Your task to perform on an android device: View the shopping cart on bestbuy.com. Search for "bose soundlink" on bestbuy.com, select the first entry, add it to the cart, then select checkout. Image 0: 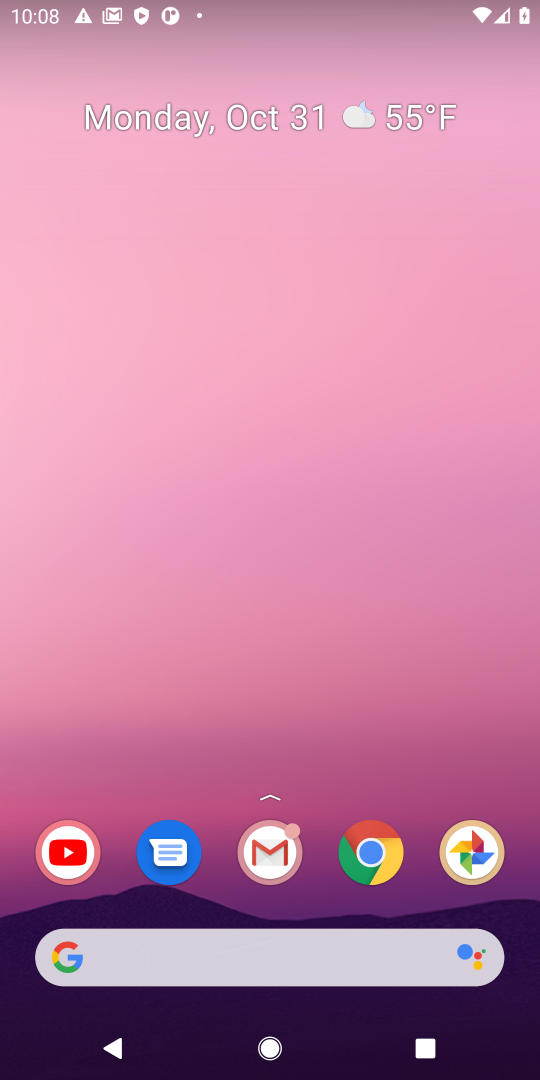
Step 0: drag from (313, 412) to (301, 85)
Your task to perform on an android device: View the shopping cart on bestbuy.com. Search for "bose soundlink" on bestbuy.com, select the first entry, add it to the cart, then select checkout. Image 1: 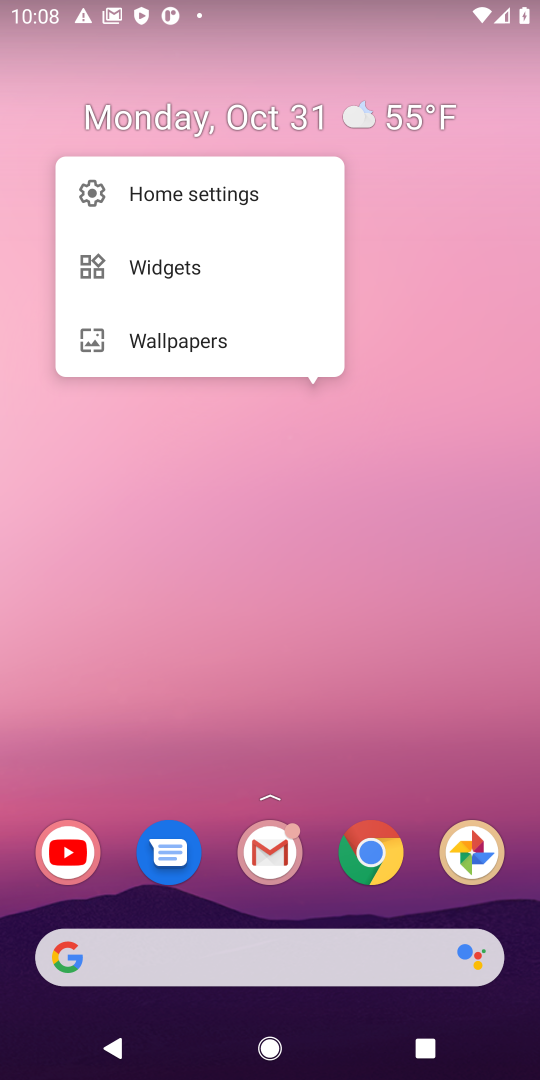
Step 1: click (345, 641)
Your task to perform on an android device: View the shopping cart on bestbuy.com. Search for "bose soundlink" on bestbuy.com, select the first entry, add it to the cart, then select checkout. Image 2: 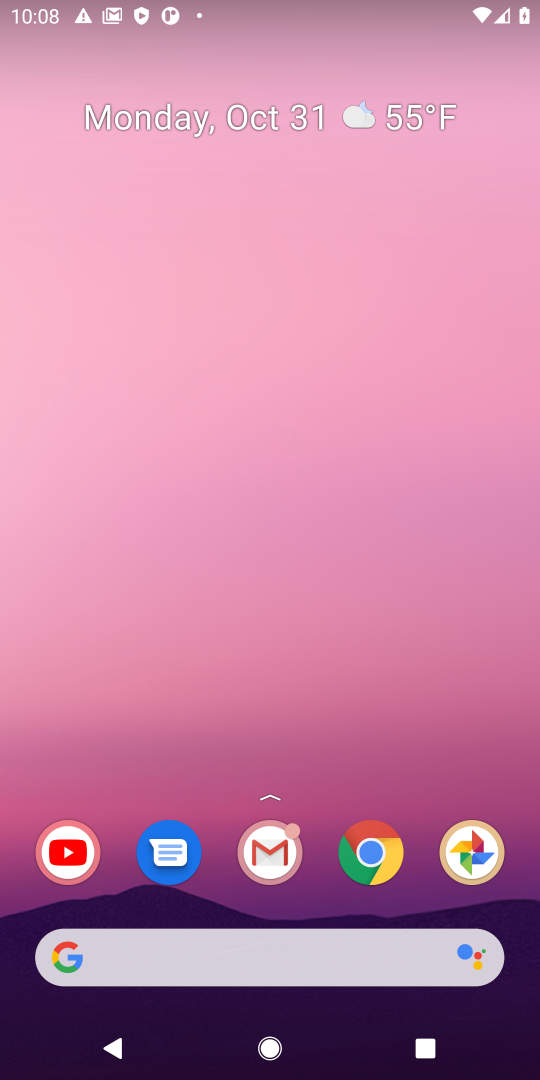
Step 2: drag from (310, 811) to (300, 126)
Your task to perform on an android device: View the shopping cart on bestbuy.com. Search for "bose soundlink" on bestbuy.com, select the first entry, add it to the cart, then select checkout. Image 3: 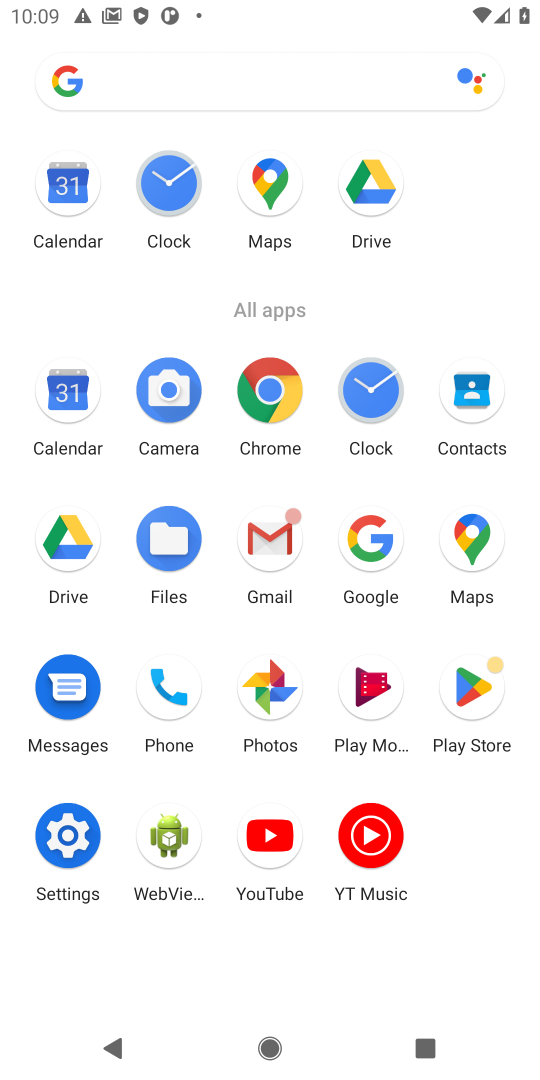
Step 3: click (269, 386)
Your task to perform on an android device: View the shopping cart on bestbuy.com. Search for "bose soundlink" on bestbuy.com, select the first entry, add it to the cart, then select checkout. Image 4: 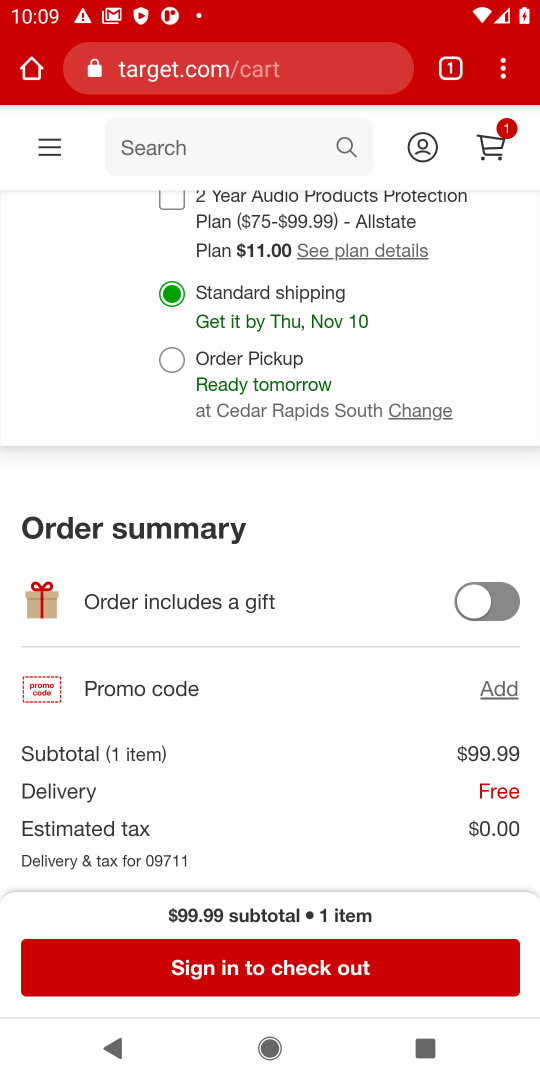
Step 4: click (218, 62)
Your task to perform on an android device: View the shopping cart on bestbuy.com. Search for "bose soundlink" on bestbuy.com, select the first entry, add it to the cart, then select checkout. Image 5: 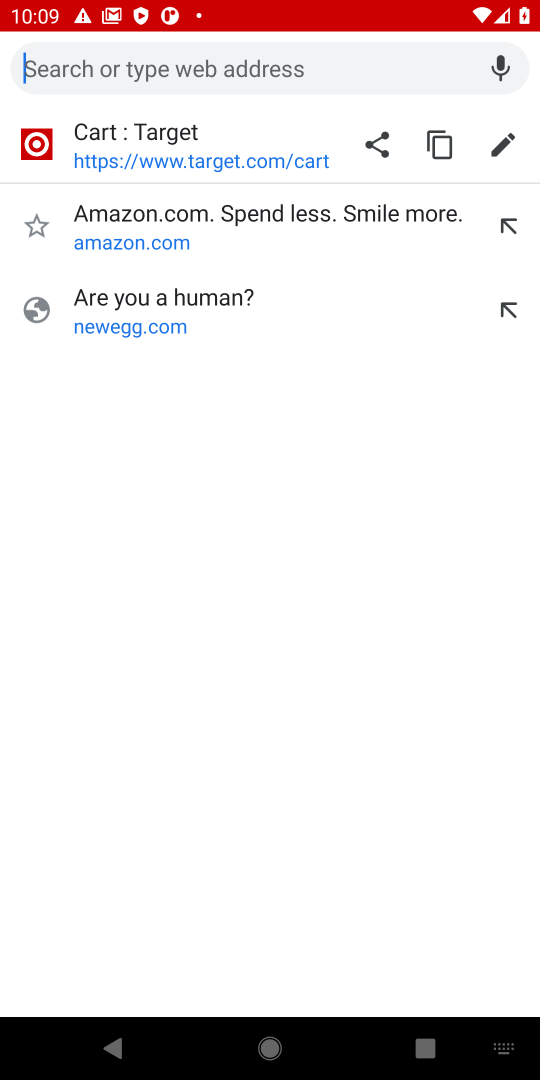
Step 5: type "bestbuy.com"
Your task to perform on an android device: View the shopping cart on bestbuy.com. Search for "bose soundlink" on bestbuy.com, select the first entry, add it to the cart, then select checkout. Image 6: 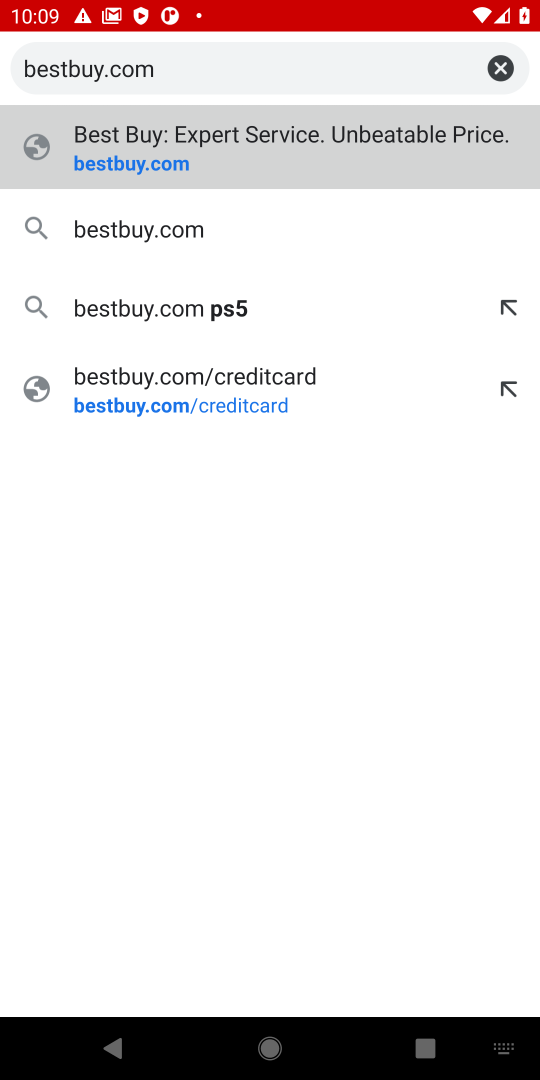
Step 6: type ""
Your task to perform on an android device: View the shopping cart on bestbuy.com. Search for "bose soundlink" on bestbuy.com, select the first entry, add it to the cart, then select checkout. Image 7: 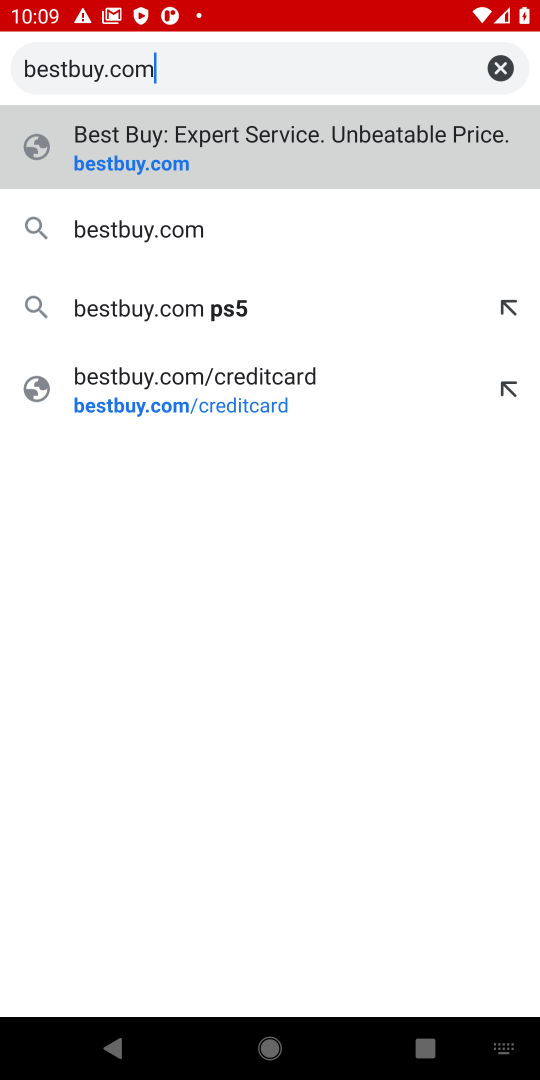
Step 7: click (171, 156)
Your task to perform on an android device: View the shopping cart on bestbuy.com. Search for "bose soundlink" on bestbuy.com, select the first entry, add it to the cart, then select checkout. Image 8: 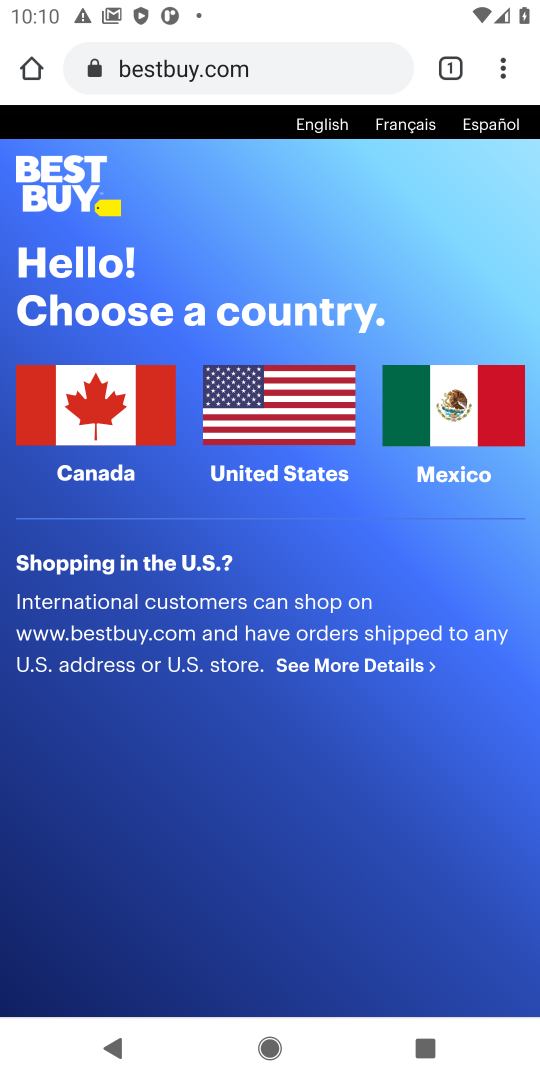
Step 8: click (278, 401)
Your task to perform on an android device: View the shopping cart on bestbuy.com. Search for "bose soundlink" on bestbuy.com, select the first entry, add it to the cart, then select checkout. Image 9: 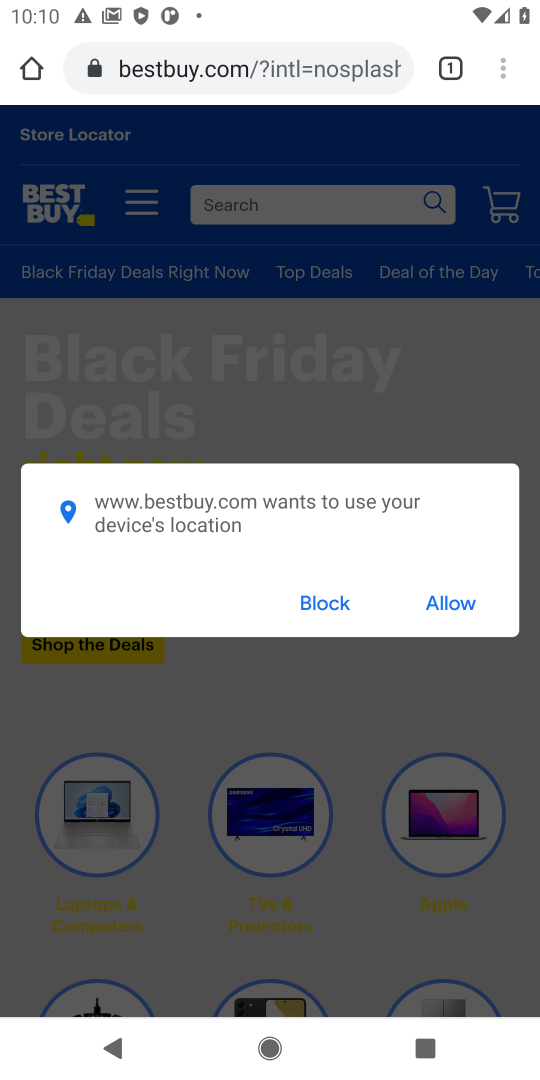
Step 9: click (452, 599)
Your task to perform on an android device: View the shopping cart on bestbuy.com. Search for "bose soundlink" on bestbuy.com, select the first entry, add it to the cart, then select checkout. Image 10: 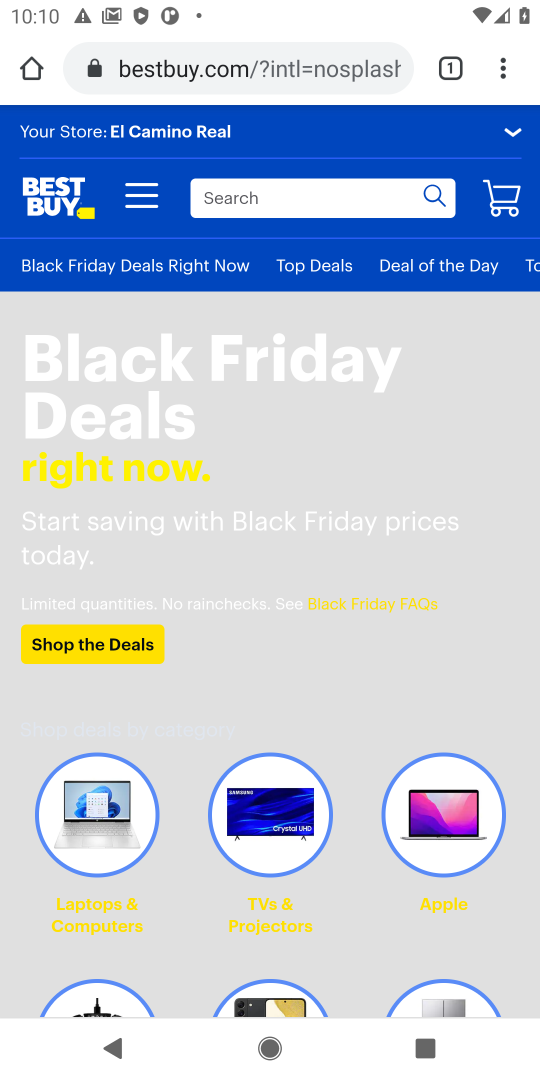
Step 10: click (261, 198)
Your task to perform on an android device: View the shopping cart on bestbuy.com. Search for "bose soundlink" on bestbuy.com, select the first entry, add it to the cart, then select checkout. Image 11: 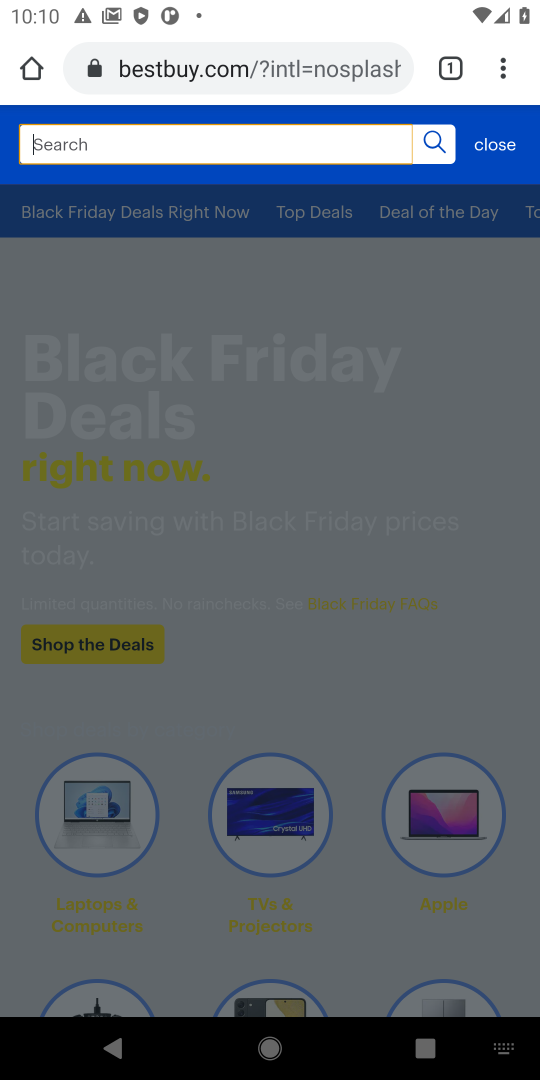
Step 11: type "bose soundlink"
Your task to perform on an android device: View the shopping cart on bestbuy.com. Search for "bose soundlink" on bestbuy.com, select the first entry, add it to the cart, then select checkout. Image 12: 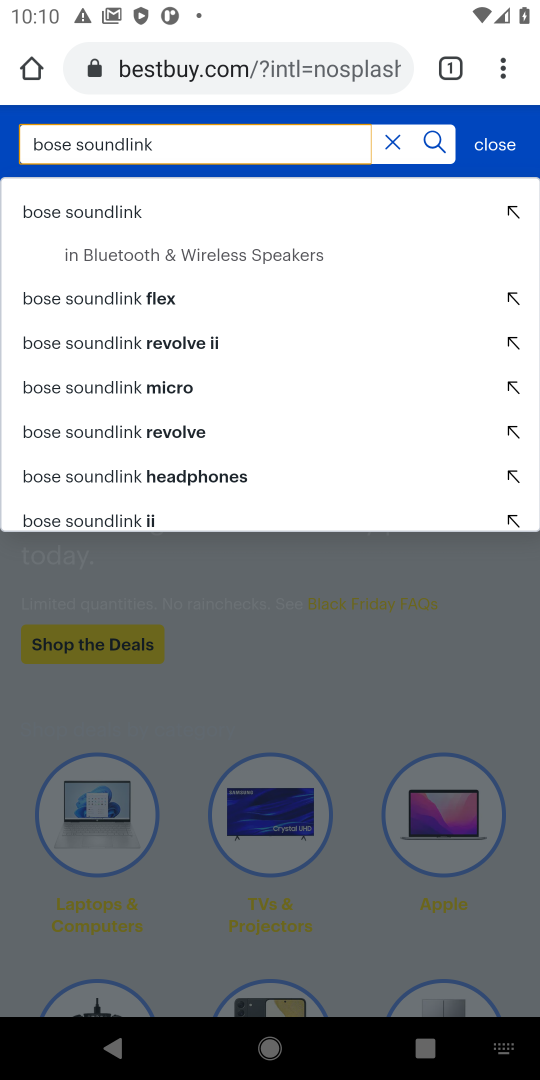
Step 12: click (148, 221)
Your task to perform on an android device: View the shopping cart on bestbuy.com. Search for "bose soundlink" on bestbuy.com, select the first entry, add it to the cart, then select checkout. Image 13: 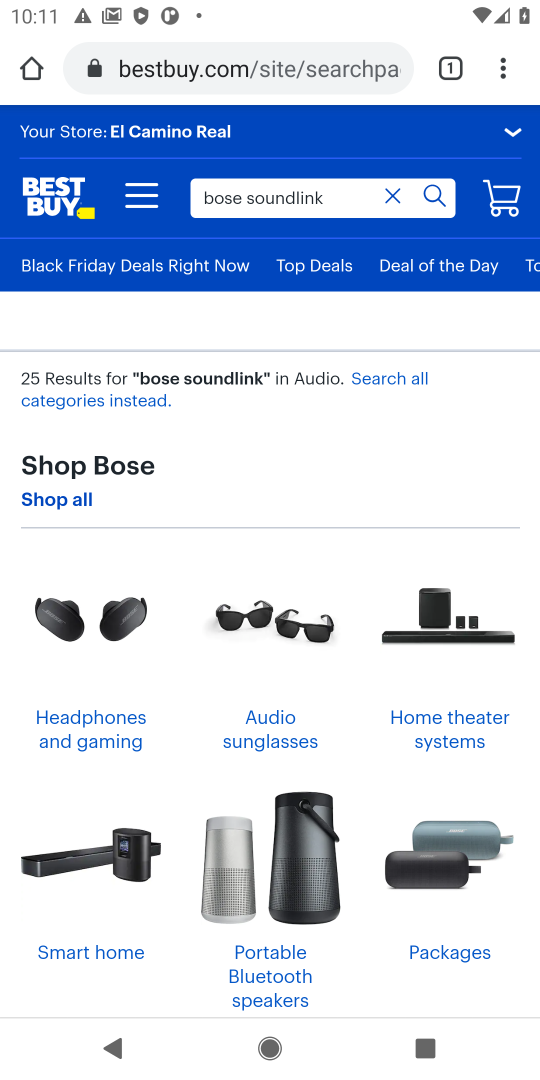
Step 13: drag from (336, 735) to (318, 366)
Your task to perform on an android device: View the shopping cart on bestbuy.com. Search for "bose soundlink" on bestbuy.com, select the first entry, add it to the cart, then select checkout. Image 14: 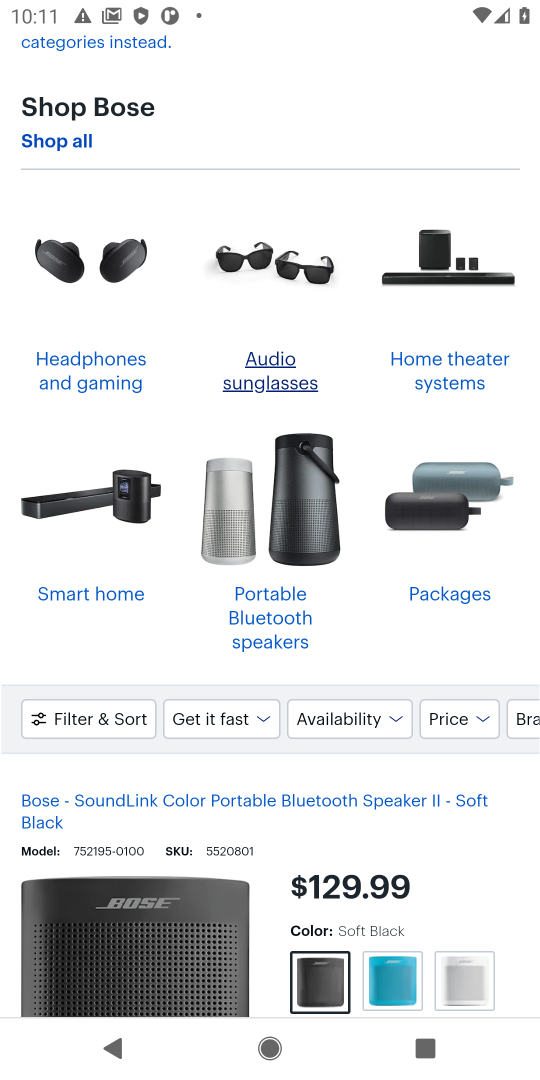
Step 14: drag from (315, 890) to (314, 310)
Your task to perform on an android device: View the shopping cart on bestbuy.com. Search for "bose soundlink" on bestbuy.com, select the first entry, add it to the cart, then select checkout. Image 15: 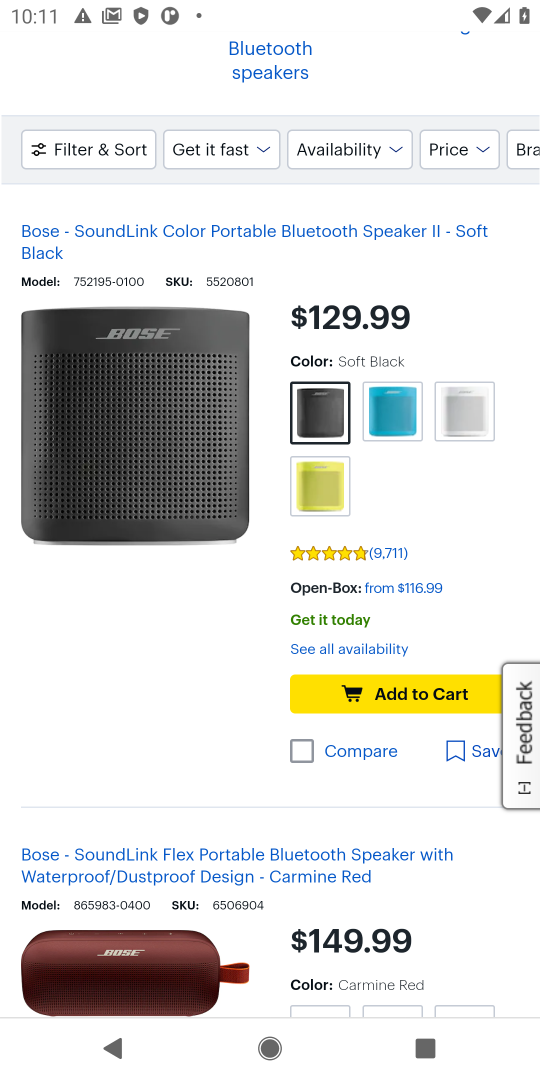
Step 15: click (268, 358)
Your task to perform on an android device: View the shopping cart on bestbuy.com. Search for "bose soundlink" on bestbuy.com, select the first entry, add it to the cart, then select checkout. Image 16: 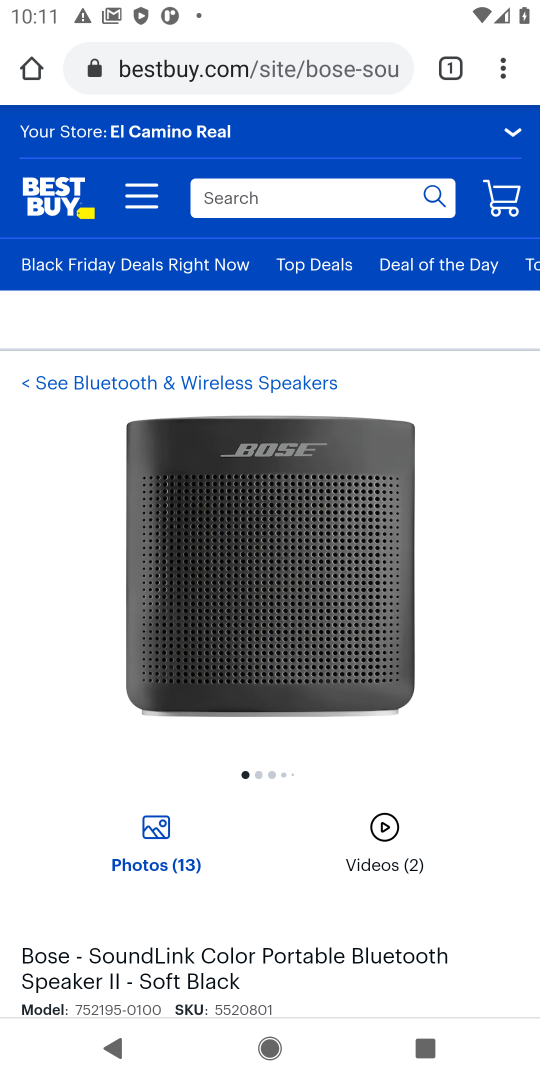
Step 16: drag from (299, 947) to (266, 323)
Your task to perform on an android device: View the shopping cart on bestbuy.com. Search for "bose soundlink" on bestbuy.com, select the first entry, add it to the cart, then select checkout. Image 17: 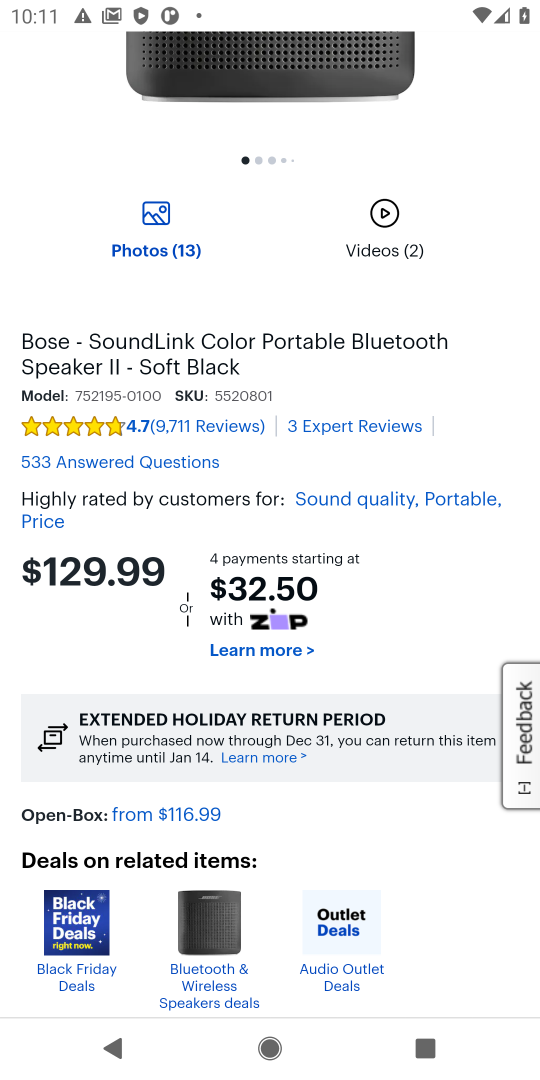
Step 17: drag from (418, 863) to (366, 260)
Your task to perform on an android device: View the shopping cart on bestbuy.com. Search for "bose soundlink" on bestbuy.com, select the first entry, add it to the cart, then select checkout. Image 18: 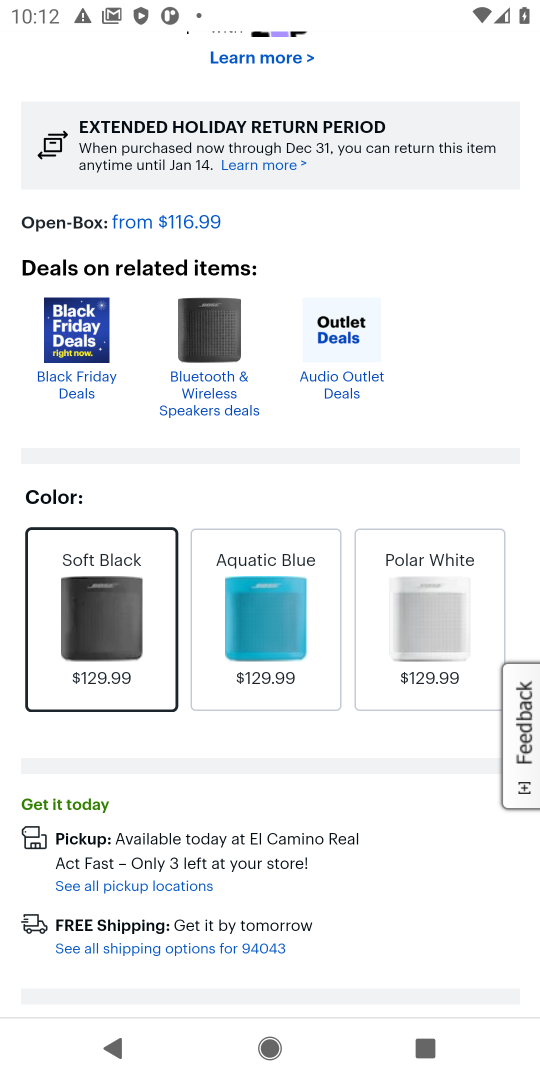
Step 18: drag from (289, 887) to (253, 413)
Your task to perform on an android device: View the shopping cart on bestbuy.com. Search for "bose soundlink" on bestbuy.com, select the first entry, add it to the cart, then select checkout. Image 19: 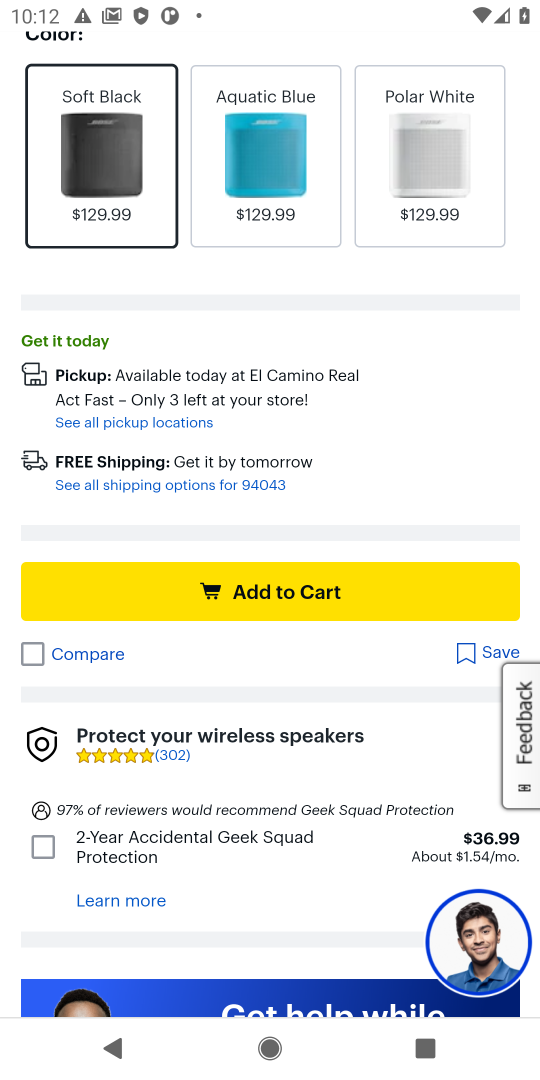
Step 19: click (258, 588)
Your task to perform on an android device: View the shopping cart on bestbuy.com. Search for "bose soundlink" on bestbuy.com, select the first entry, add it to the cart, then select checkout. Image 20: 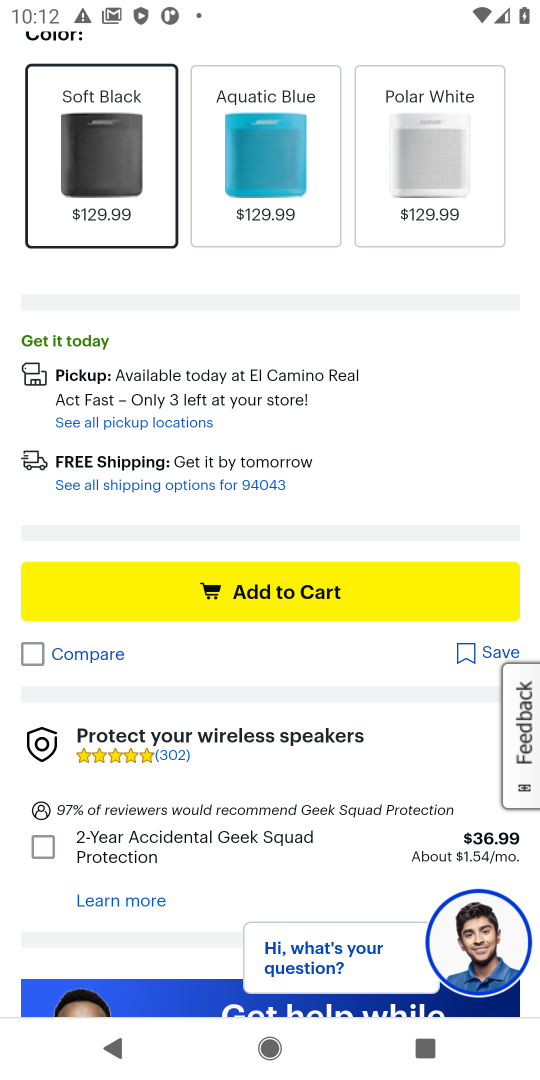
Step 20: click (506, 61)
Your task to perform on an android device: View the shopping cart on bestbuy.com. Search for "bose soundlink" on bestbuy.com, select the first entry, add it to the cart, then select checkout. Image 21: 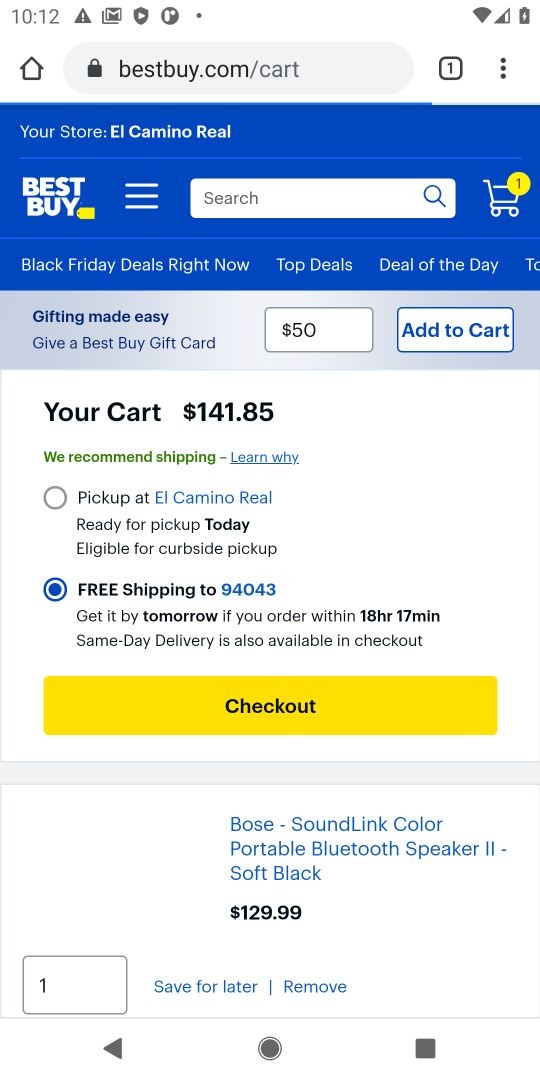
Step 21: click (511, 191)
Your task to perform on an android device: View the shopping cart on bestbuy.com. Search for "bose soundlink" on bestbuy.com, select the first entry, add it to the cart, then select checkout. Image 22: 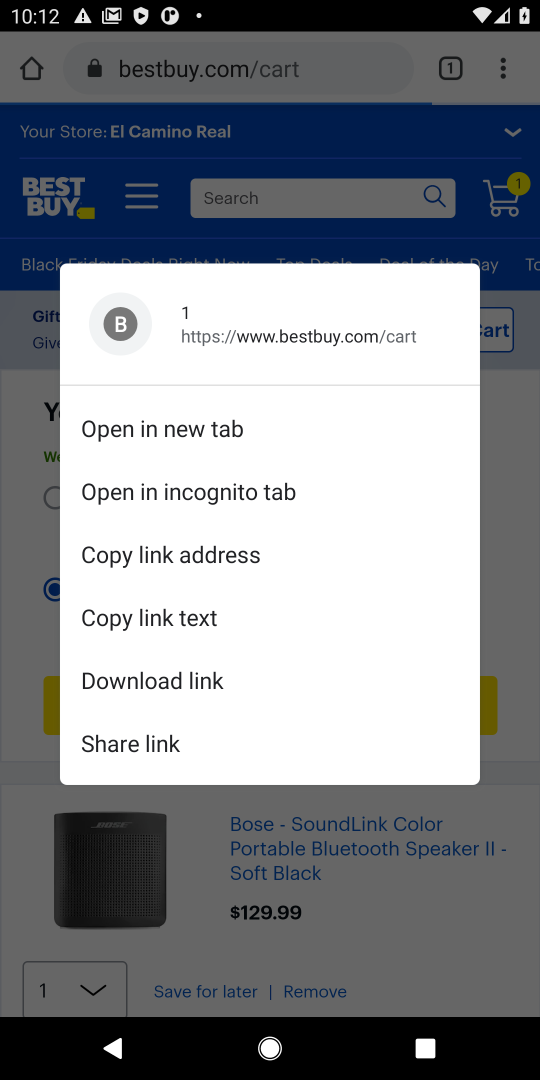
Step 22: click (509, 190)
Your task to perform on an android device: View the shopping cart on bestbuy.com. Search for "bose soundlink" on bestbuy.com, select the first entry, add it to the cart, then select checkout. Image 23: 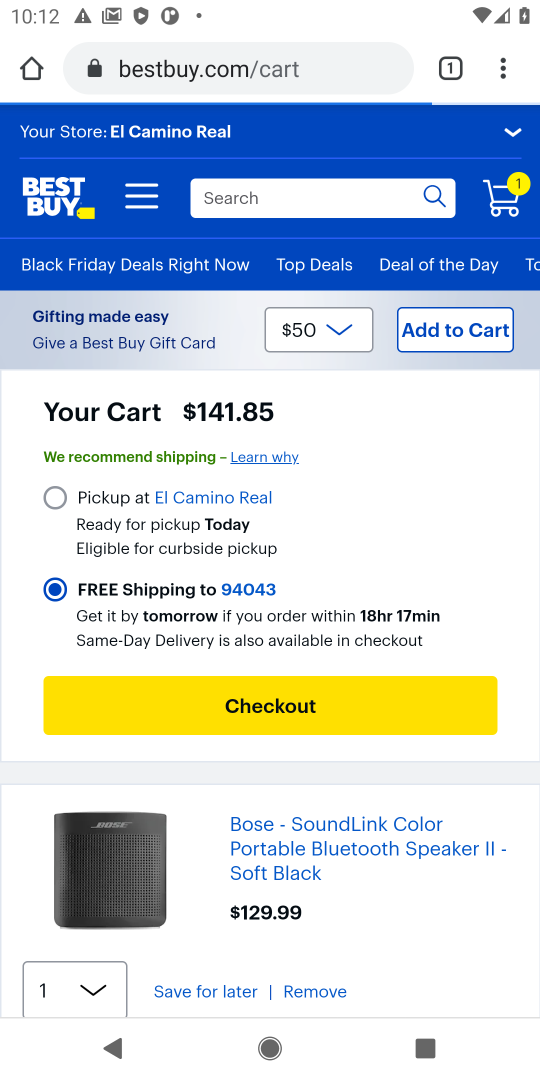
Step 23: click (502, 203)
Your task to perform on an android device: View the shopping cart on bestbuy.com. Search for "bose soundlink" on bestbuy.com, select the first entry, add it to the cart, then select checkout. Image 24: 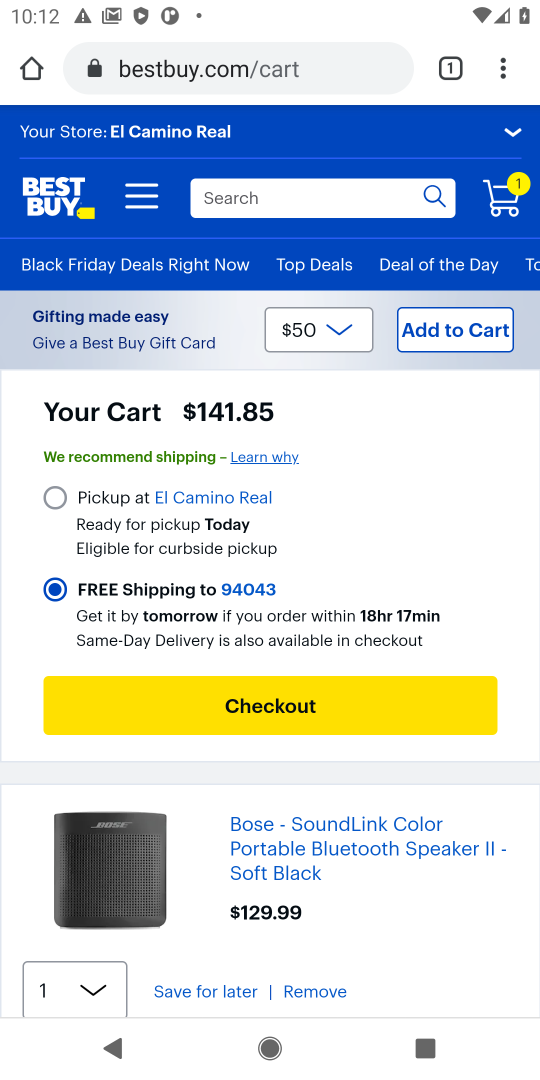
Step 24: click (261, 713)
Your task to perform on an android device: View the shopping cart on bestbuy.com. Search for "bose soundlink" on bestbuy.com, select the first entry, add it to the cart, then select checkout. Image 25: 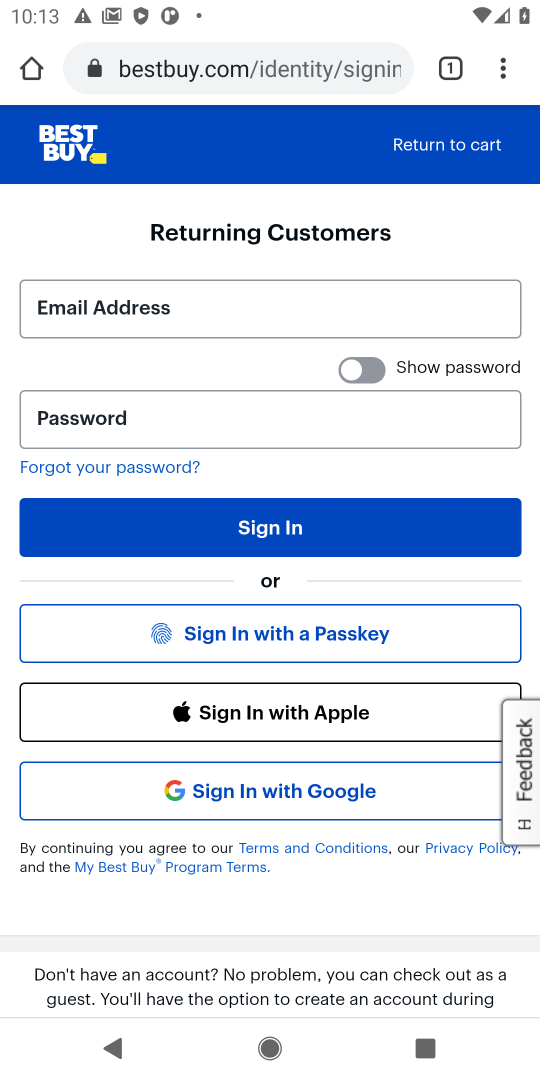
Step 25: task complete